Your task to perform on an android device: Open the calendar app, open the side menu, and click the "Day" option Image 0: 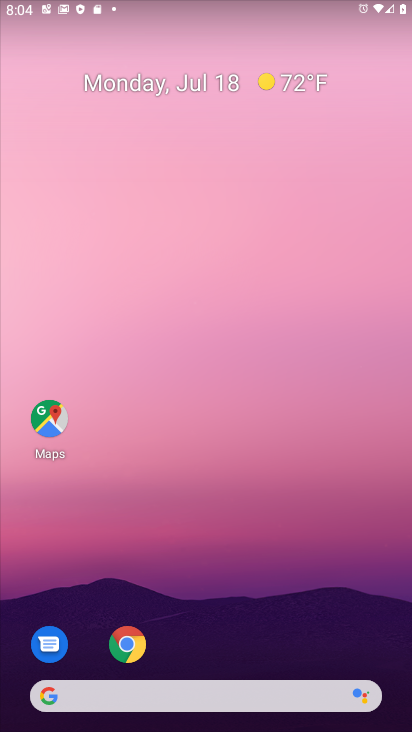
Step 0: drag from (360, 651) to (143, 85)
Your task to perform on an android device: Open the calendar app, open the side menu, and click the "Day" option Image 1: 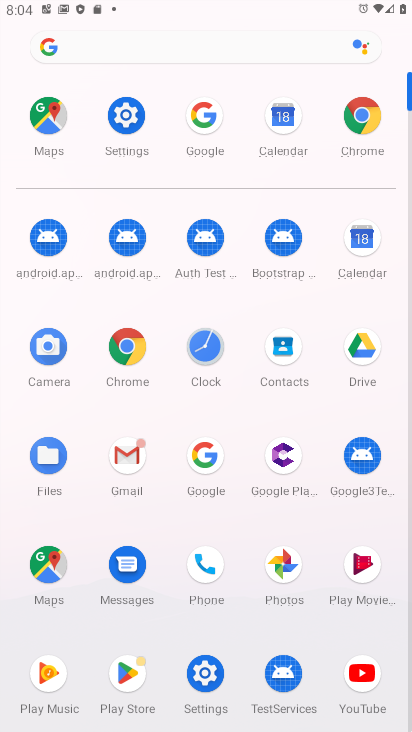
Step 1: click (386, 236)
Your task to perform on an android device: Open the calendar app, open the side menu, and click the "Day" option Image 2: 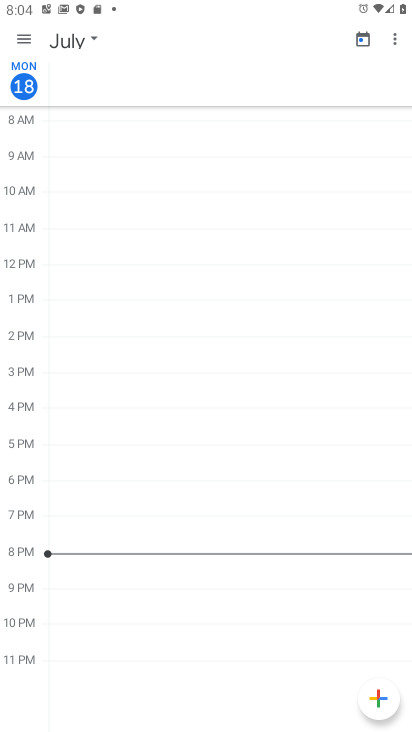
Step 2: click (12, 31)
Your task to perform on an android device: Open the calendar app, open the side menu, and click the "Day" option Image 3: 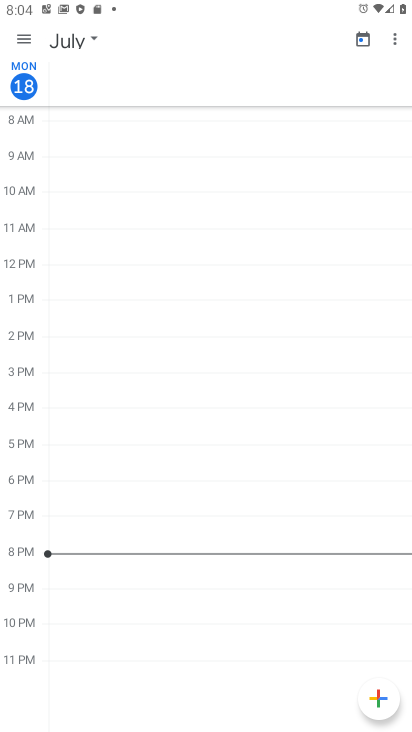
Step 3: click (20, 37)
Your task to perform on an android device: Open the calendar app, open the side menu, and click the "Day" option Image 4: 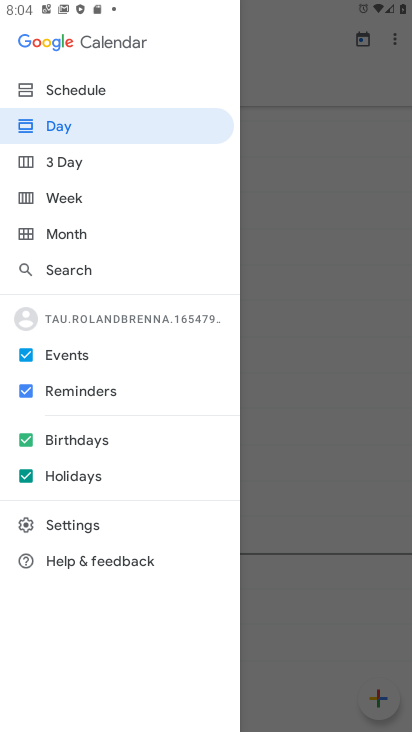
Step 4: click (81, 125)
Your task to perform on an android device: Open the calendar app, open the side menu, and click the "Day" option Image 5: 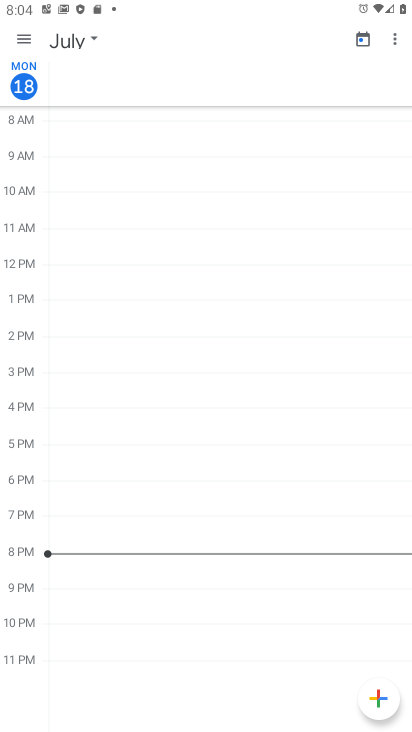
Step 5: task complete